Your task to perform on an android device: Open Google Maps and go to "Timeline" Image 0: 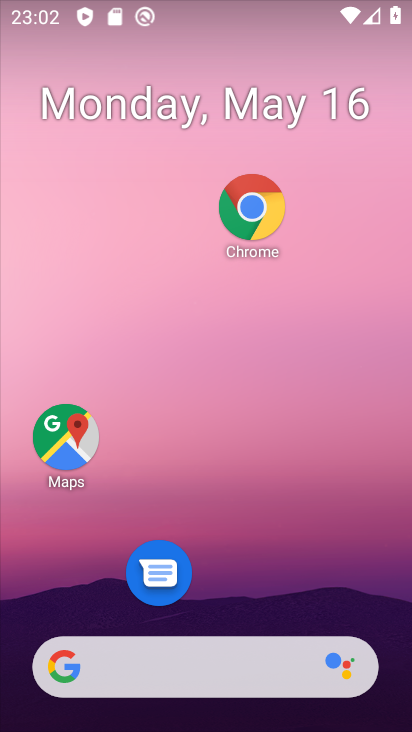
Step 0: drag from (277, 646) to (322, 99)
Your task to perform on an android device: Open Google Maps and go to "Timeline" Image 1: 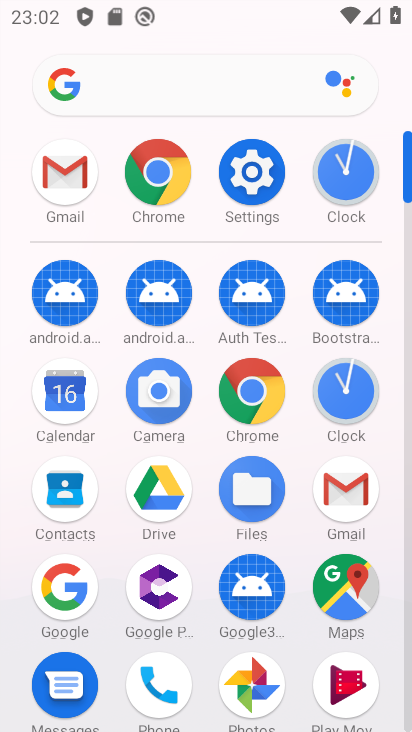
Step 1: click (341, 589)
Your task to perform on an android device: Open Google Maps and go to "Timeline" Image 2: 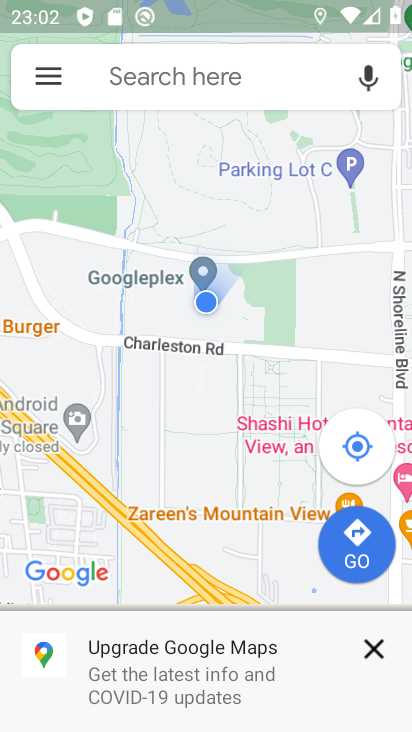
Step 2: click (38, 81)
Your task to perform on an android device: Open Google Maps and go to "Timeline" Image 3: 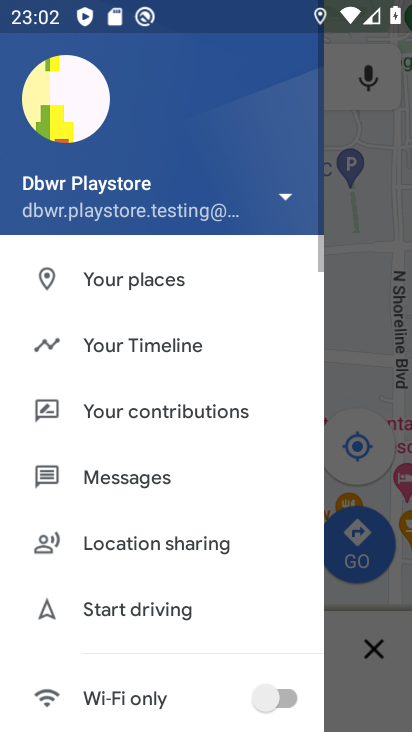
Step 3: click (143, 348)
Your task to perform on an android device: Open Google Maps and go to "Timeline" Image 4: 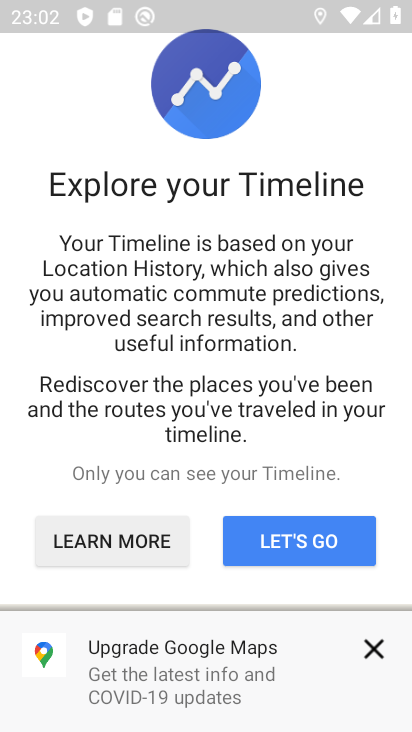
Step 4: click (376, 650)
Your task to perform on an android device: Open Google Maps and go to "Timeline" Image 5: 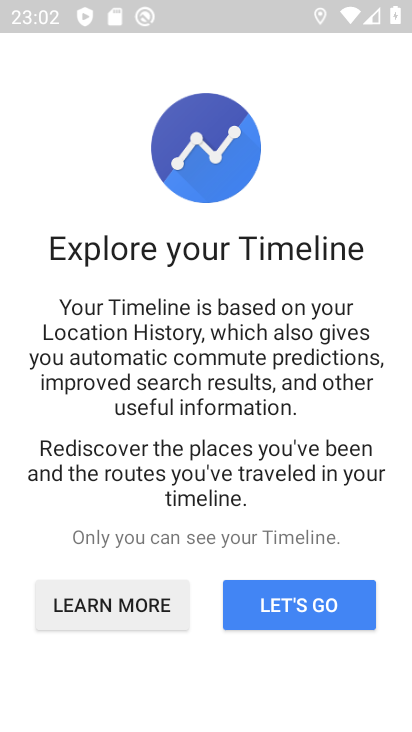
Step 5: click (286, 597)
Your task to perform on an android device: Open Google Maps and go to "Timeline" Image 6: 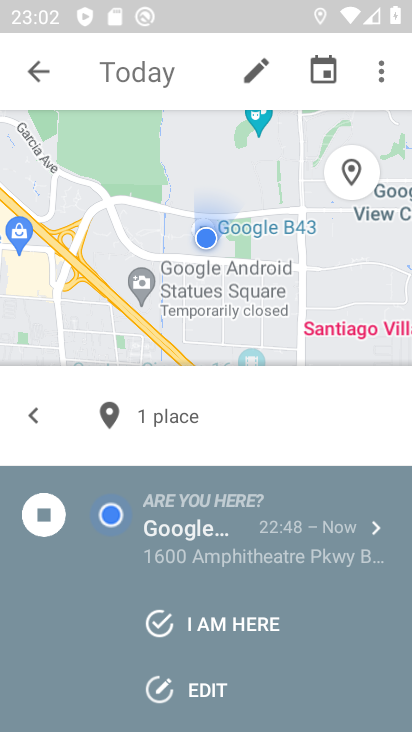
Step 6: task complete